Your task to perform on an android device: When is my next meeting? Image 0: 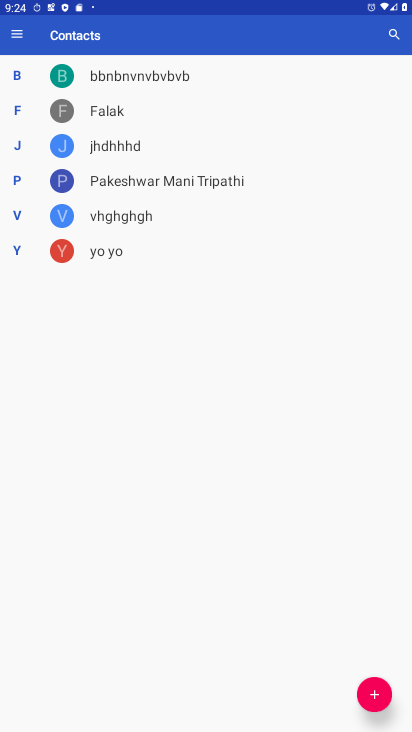
Step 0: drag from (219, 598) to (275, 438)
Your task to perform on an android device: When is my next meeting? Image 1: 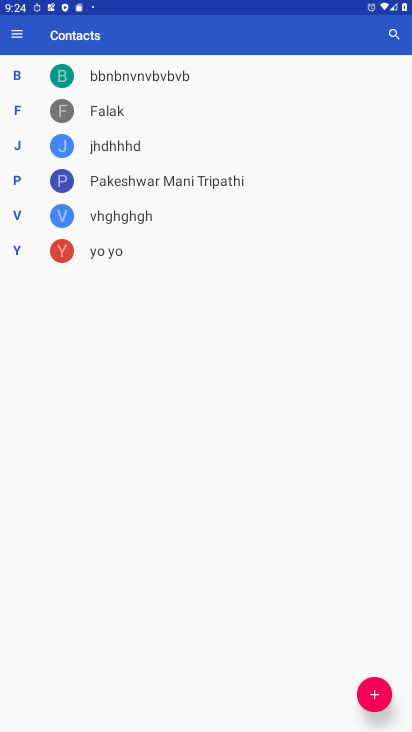
Step 1: press home button
Your task to perform on an android device: When is my next meeting? Image 2: 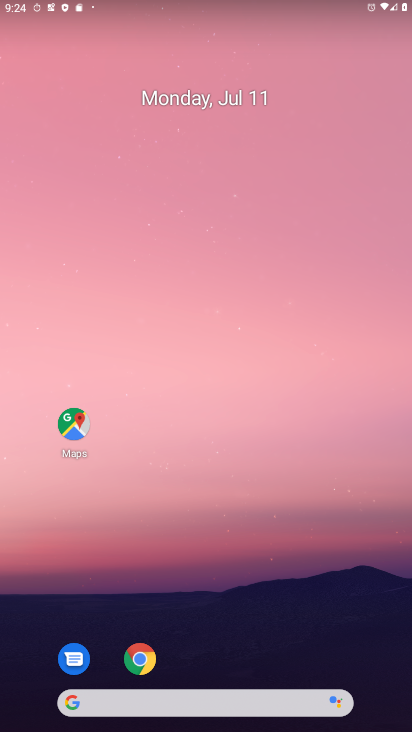
Step 2: drag from (199, 638) to (198, 351)
Your task to perform on an android device: When is my next meeting? Image 3: 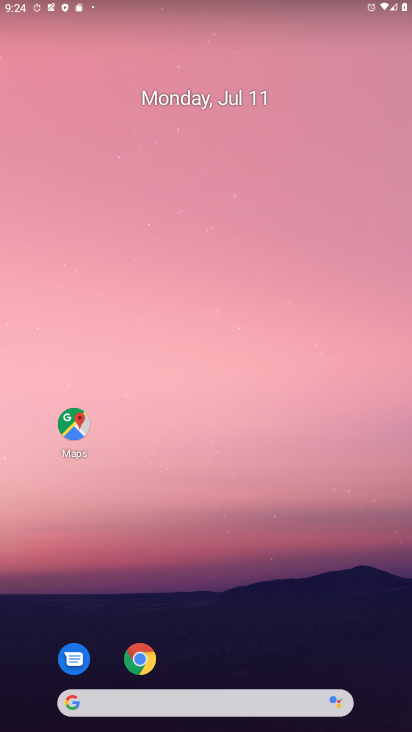
Step 3: drag from (197, 683) to (204, 342)
Your task to perform on an android device: When is my next meeting? Image 4: 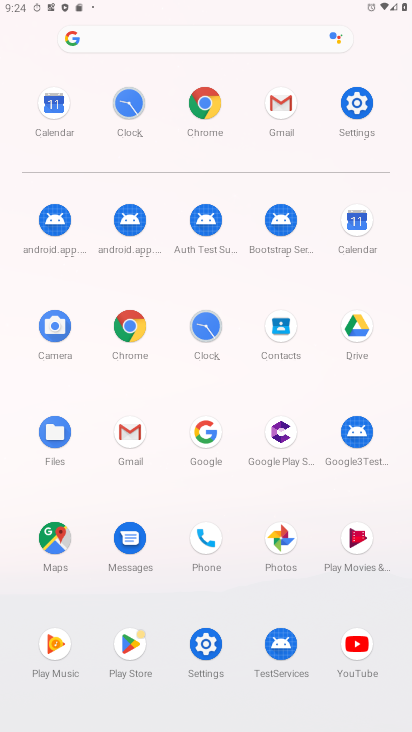
Step 4: click (362, 216)
Your task to perform on an android device: When is my next meeting? Image 5: 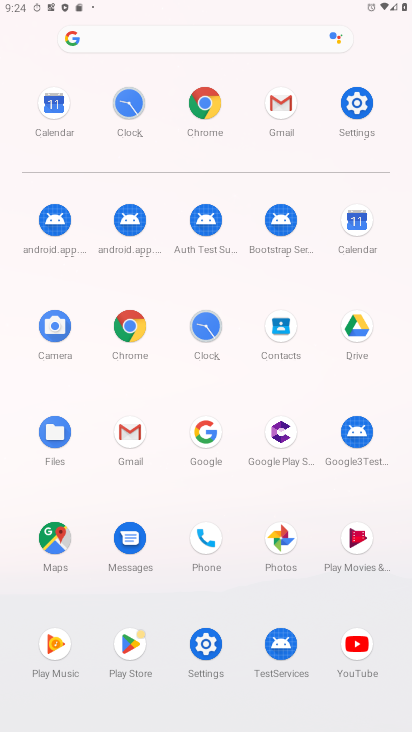
Step 5: click (362, 216)
Your task to perform on an android device: When is my next meeting? Image 6: 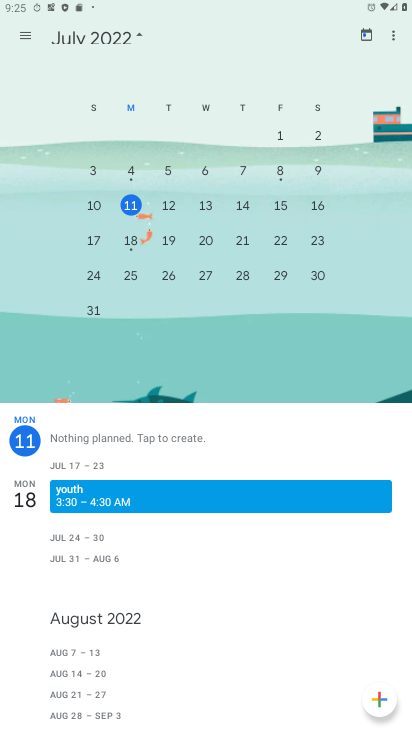
Step 6: click (123, 202)
Your task to perform on an android device: When is my next meeting? Image 7: 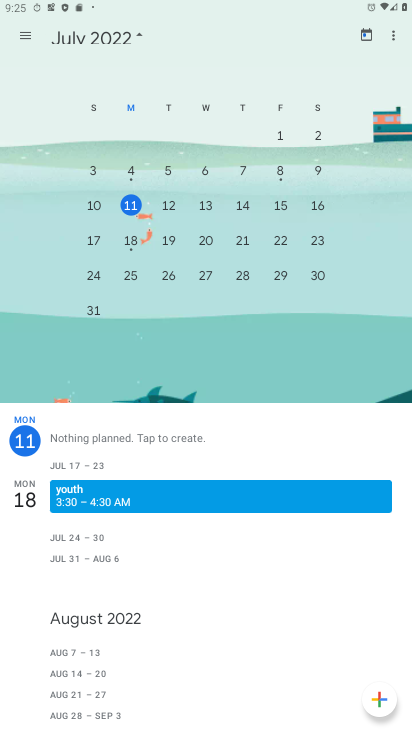
Step 7: task complete